Your task to perform on an android device: all mails in gmail Image 0: 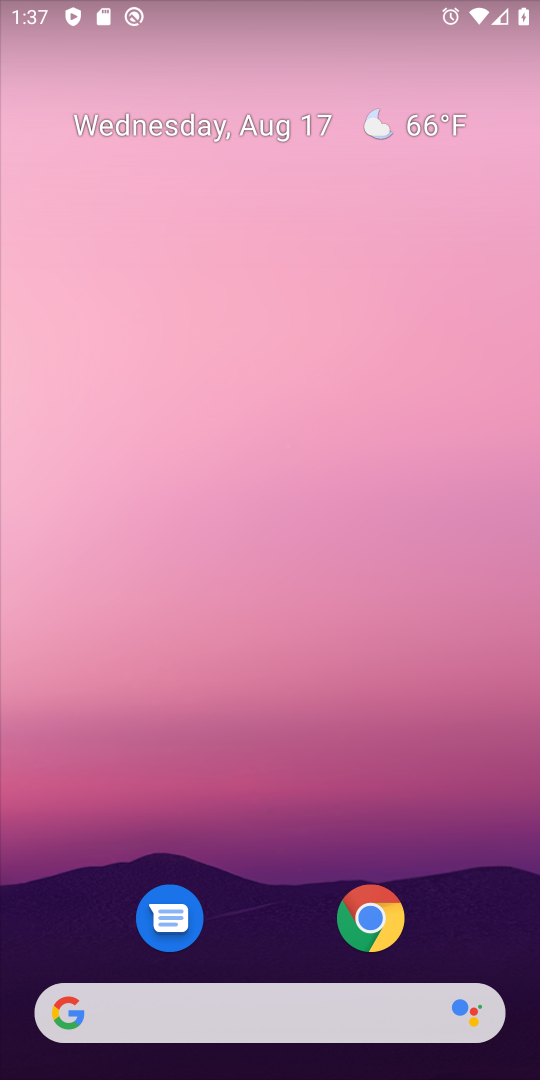
Step 0: drag from (321, 921) to (312, 210)
Your task to perform on an android device: all mails in gmail Image 1: 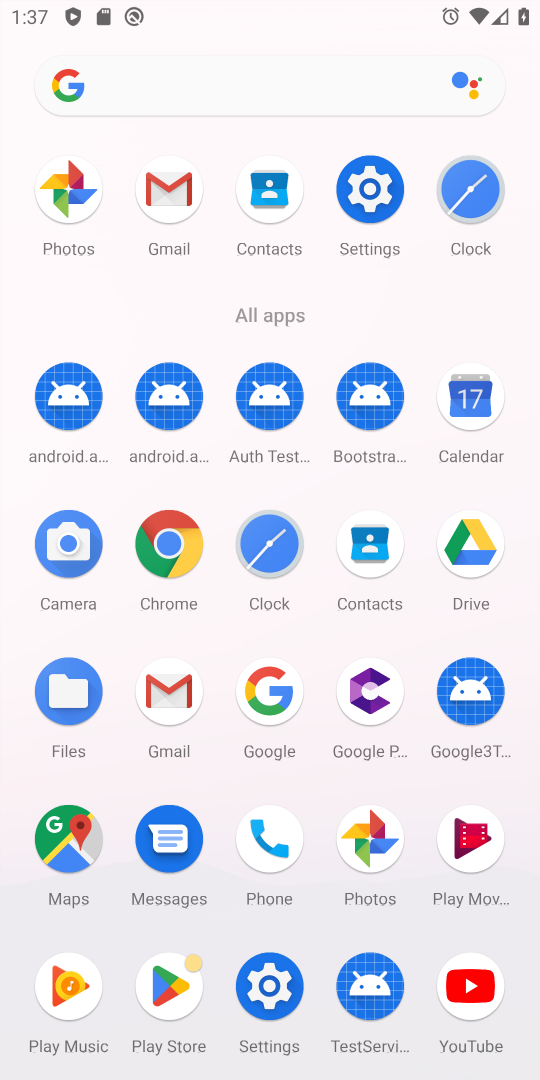
Step 1: click (160, 690)
Your task to perform on an android device: all mails in gmail Image 2: 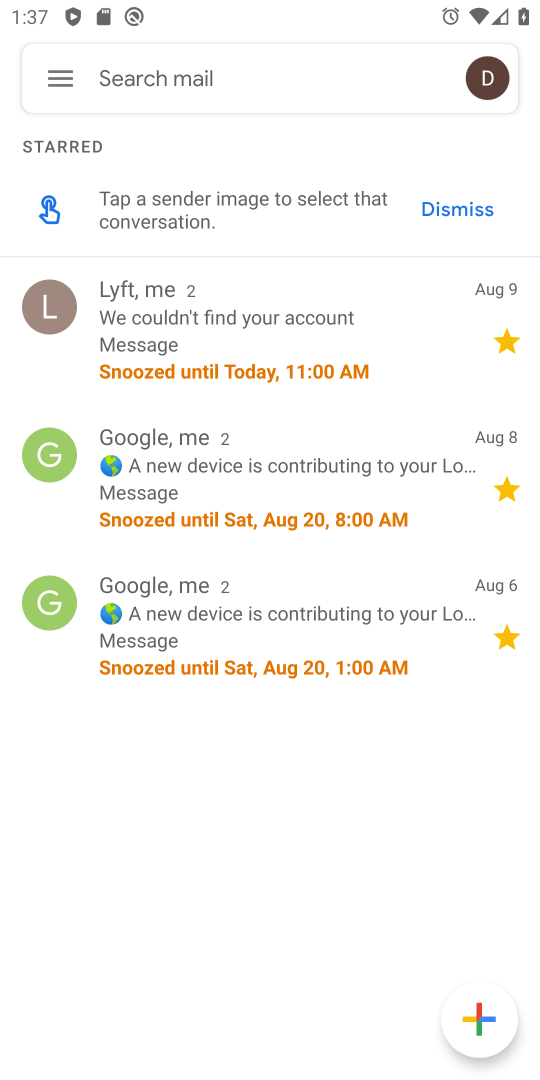
Step 2: click (66, 83)
Your task to perform on an android device: all mails in gmail Image 3: 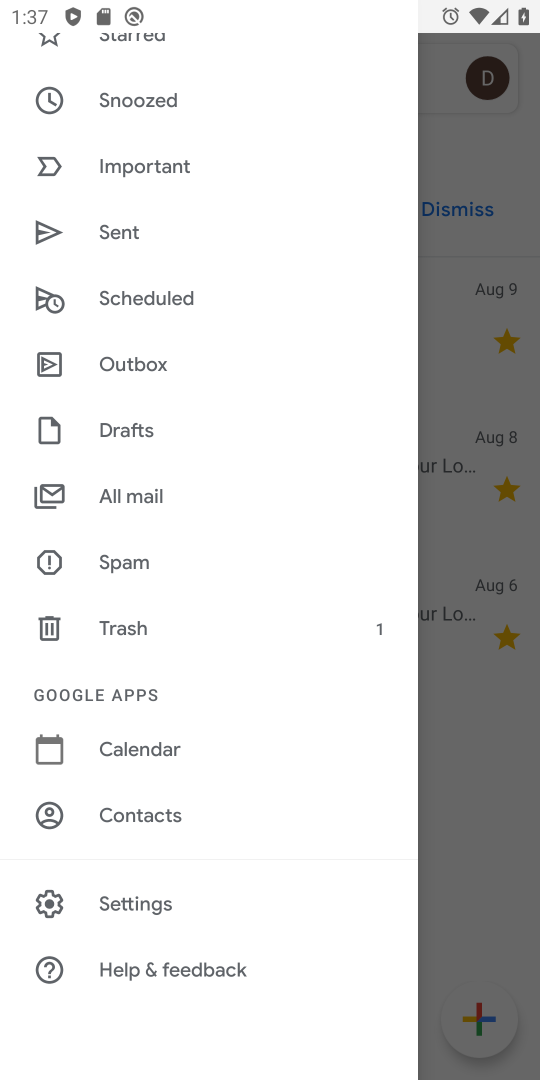
Step 3: click (132, 489)
Your task to perform on an android device: all mails in gmail Image 4: 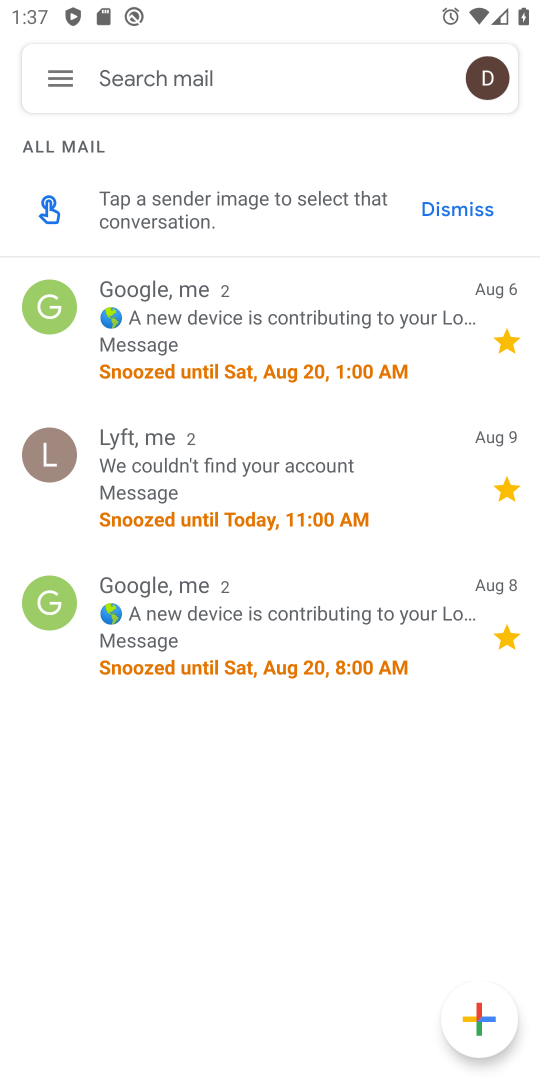
Step 4: task complete